Your task to perform on an android device: Search for "jbl flip 4" on target.com, select the first entry, add it to the cart, then select checkout. Image 0: 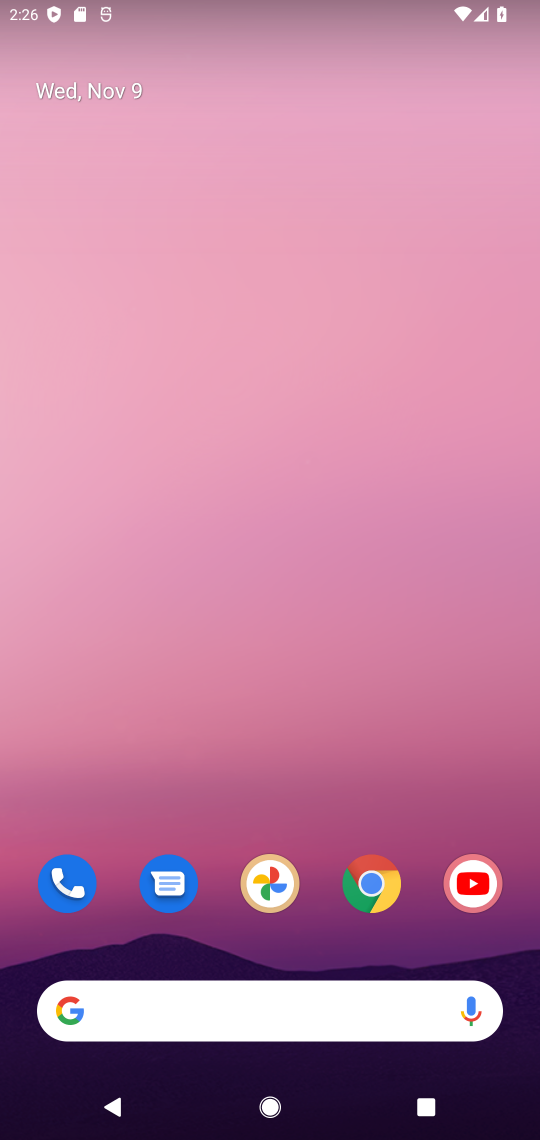
Step 0: click (363, 893)
Your task to perform on an android device: Search for "jbl flip 4" on target.com, select the first entry, add it to the cart, then select checkout. Image 1: 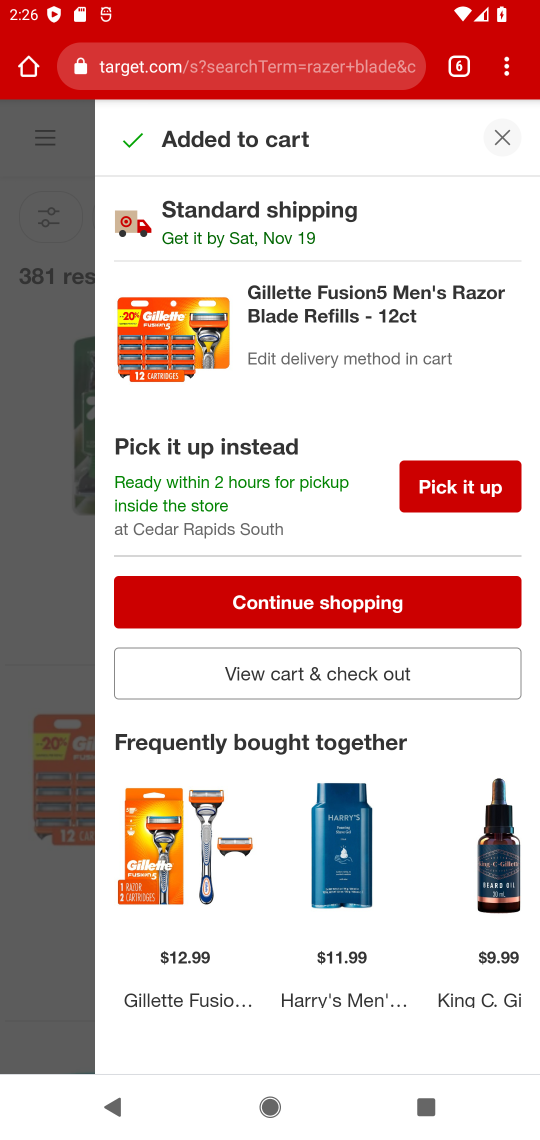
Step 1: click (507, 137)
Your task to perform on an android device: Search for "jbl flip 4" on target.com, select the first entry, add it to the cart, then select checkout. Image 2: 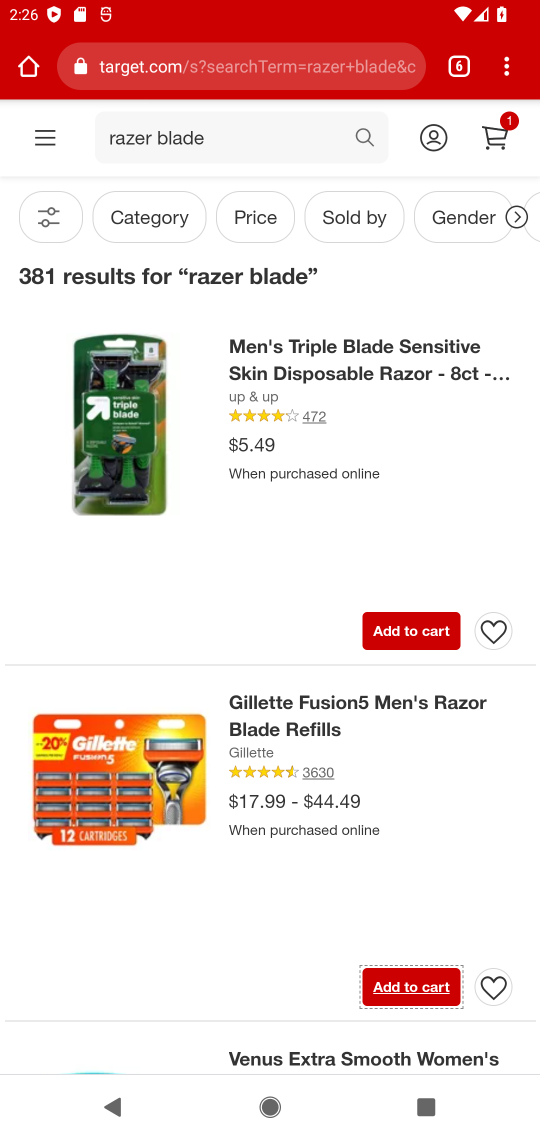
Step 2: click (221, 126)
Your task to perform on an android device: Search for "jbl flip 4" on target.com, select the first entry, add it to the cart, then select checkout. Image 3: 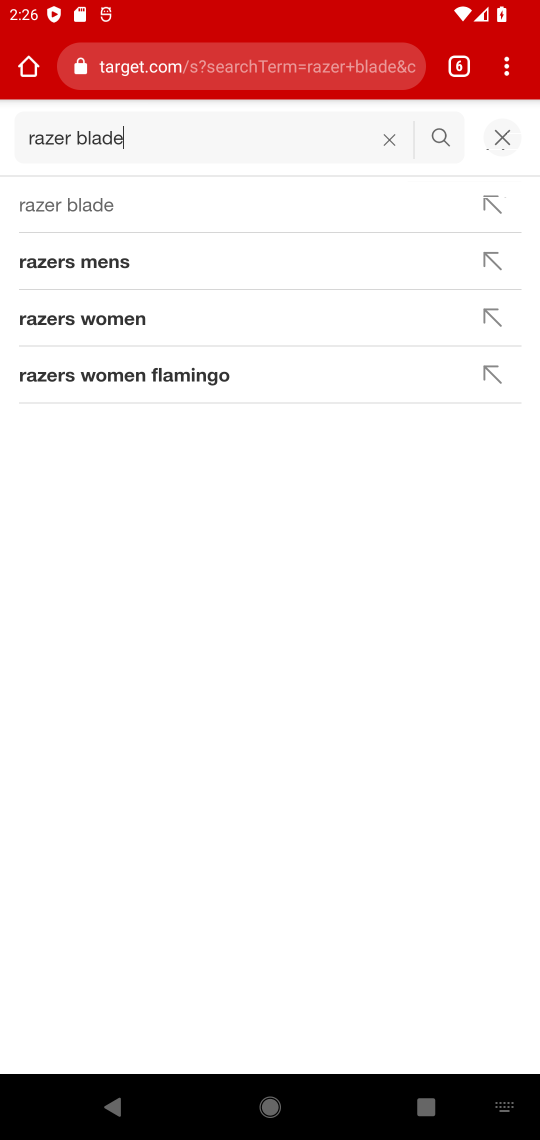
Step 3: click (390, 138)
Your task to perform on an android device: Search for "jbl flip 4" on target.com, select the first entry, add it to the cart, then select checkout. Image 4: 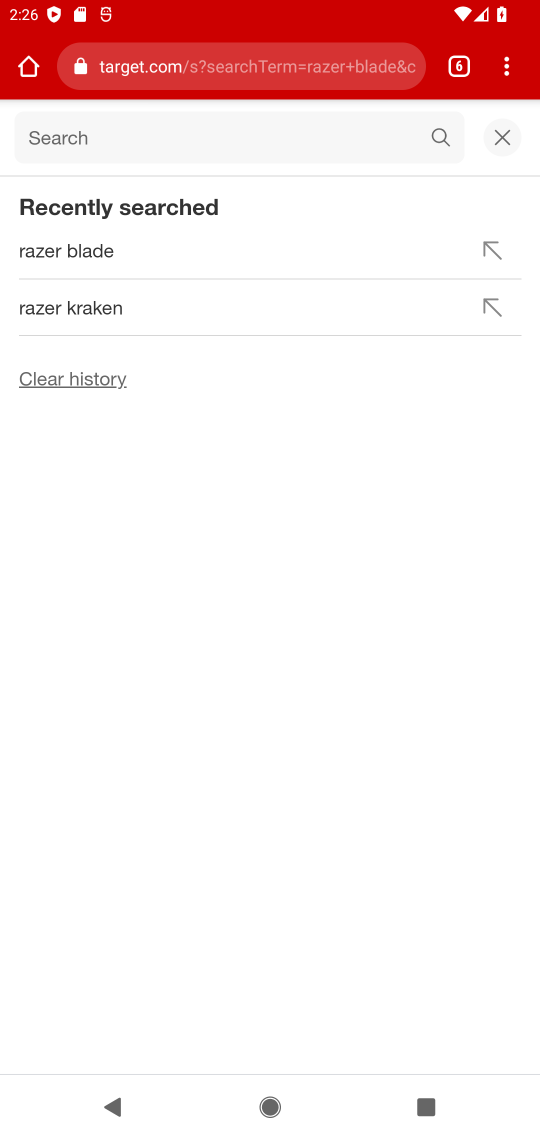
Step 4: type "jbl flip 4"
Your task to perform on an android device: Search for "jbl flip 4" on target.com, select the first entry, add it to the cart, then select checkout. Image 5: 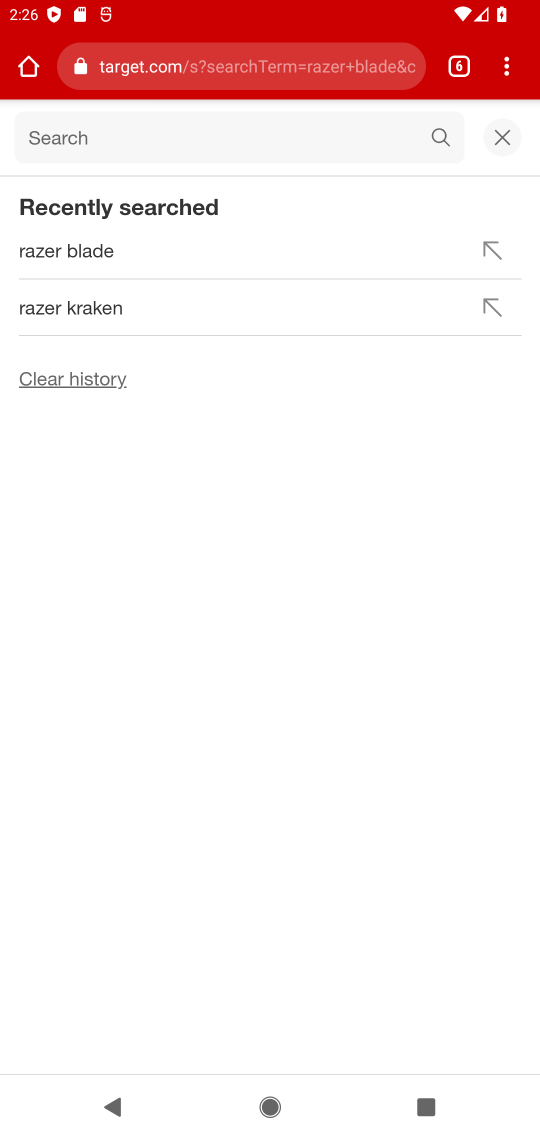
Step 5: click (343, 138)
Your task to perform on an android device: Search for "jbl flip 4" on target.com, select the first entry, add it to the cart, then select checkout. Image 6: 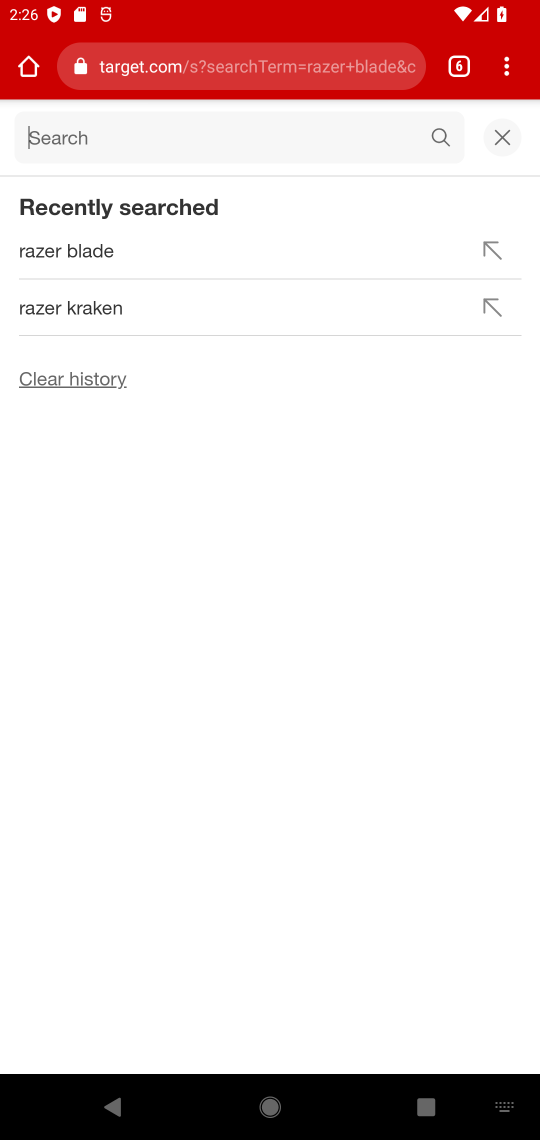
Step 6: type "jbl flip 4"
Your task to perform on an android device: Search for "jbl flip 4" on target.com, select the first entry, add it to the cart, then select checkout. Image 7: 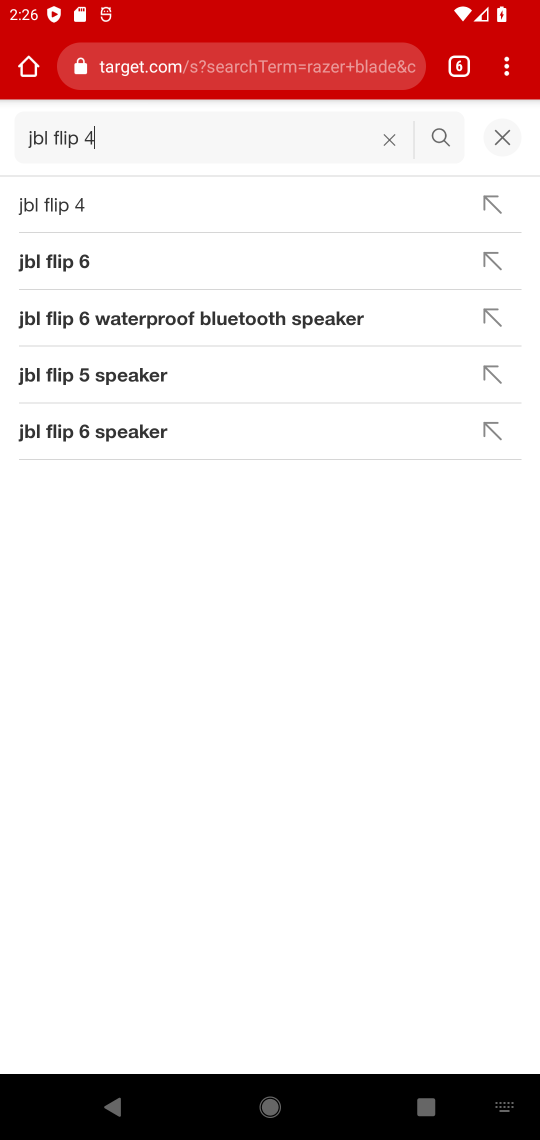
Step 7: click (61, 209)
Your task to perform on an android device: Search for "jbl flip 4" on target.com, select the first entry, add it to the cart, then select checkout. Image 8: 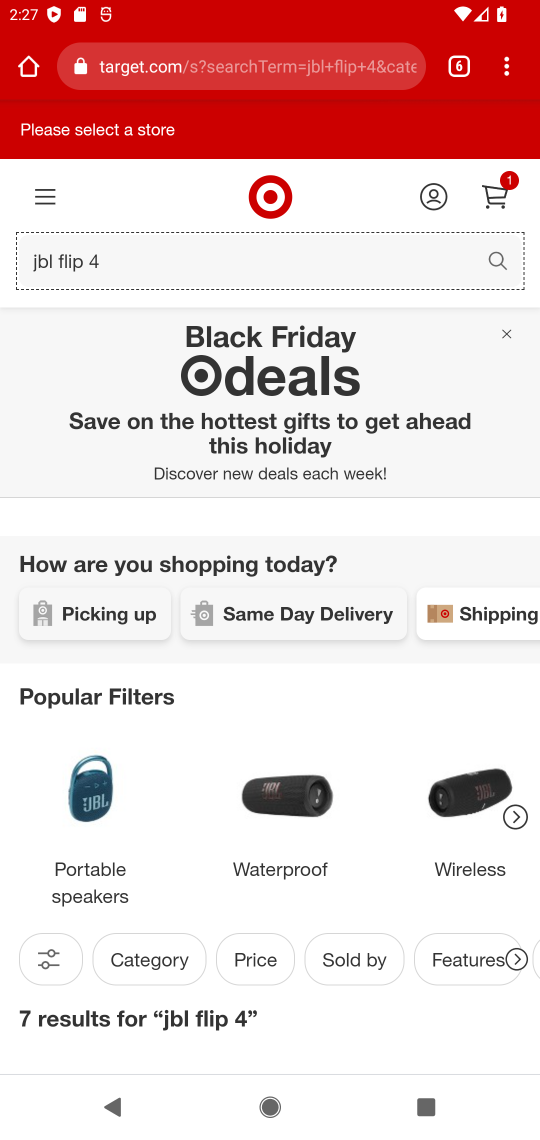
Step 8: drag from (316, 1041) to (427, 294)
Your task to perform on an android device: Search for "jbl flip 4" on target.com, select the first entry, add it to the cart, then select checkout. Image 9: 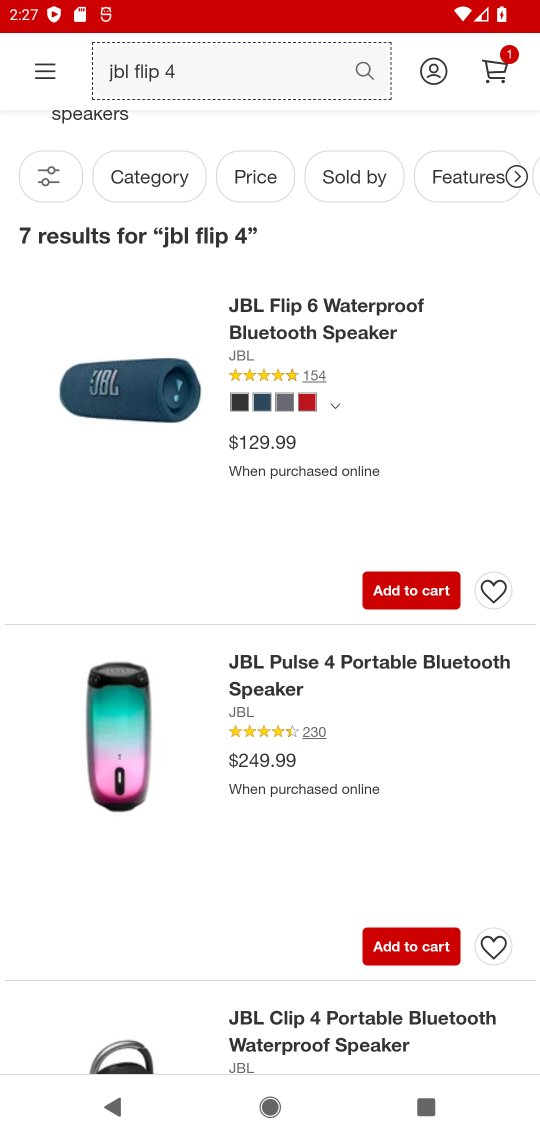
Step 9: drag from (377, 832) to (404, 414)
Your task to perform on an android device: Search for "jbl flip 4" on target.com, select the first entry, add it to the cart, then select checkout. Image 10: 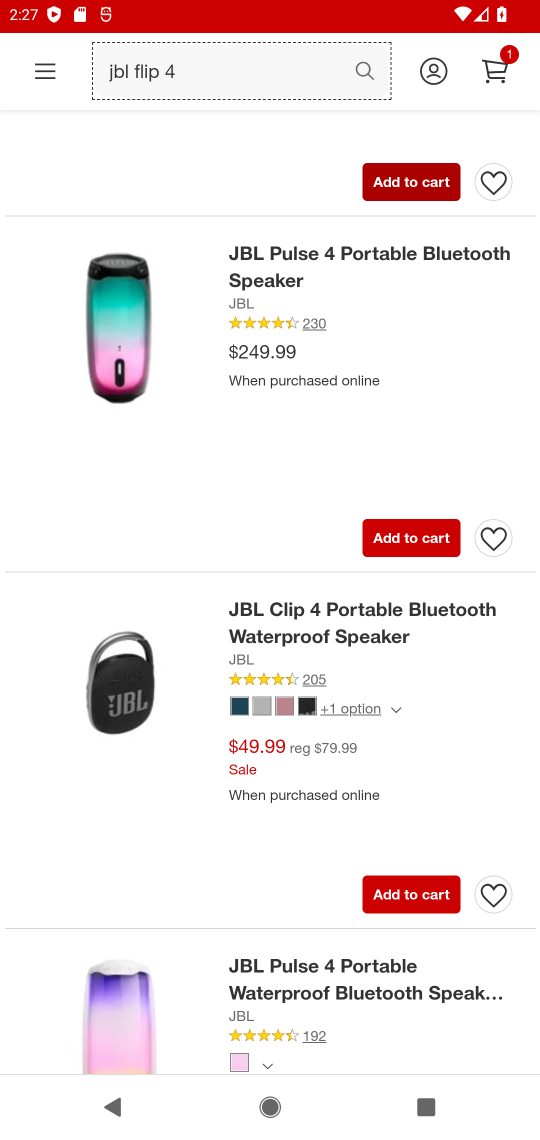
Step 10: drag from (348, 354) to (317, 576)
Your task to perform on an android device: Search for "jbl flip 4" on target.com, select the first entry, add it to the cart, then select checkout. Image 11: 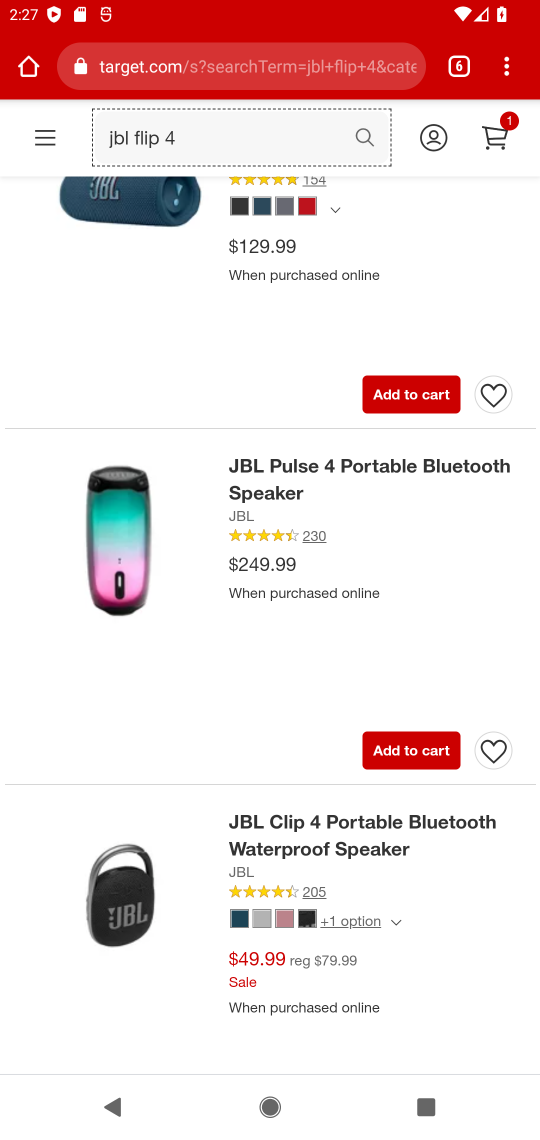
Step 11: drag from (391, 217) to (293, 712)
Your task to perform on an android device: Search for "jbl flip 4" on target.com, select the first entry, add it to the cart, then select checkout. Image 12: 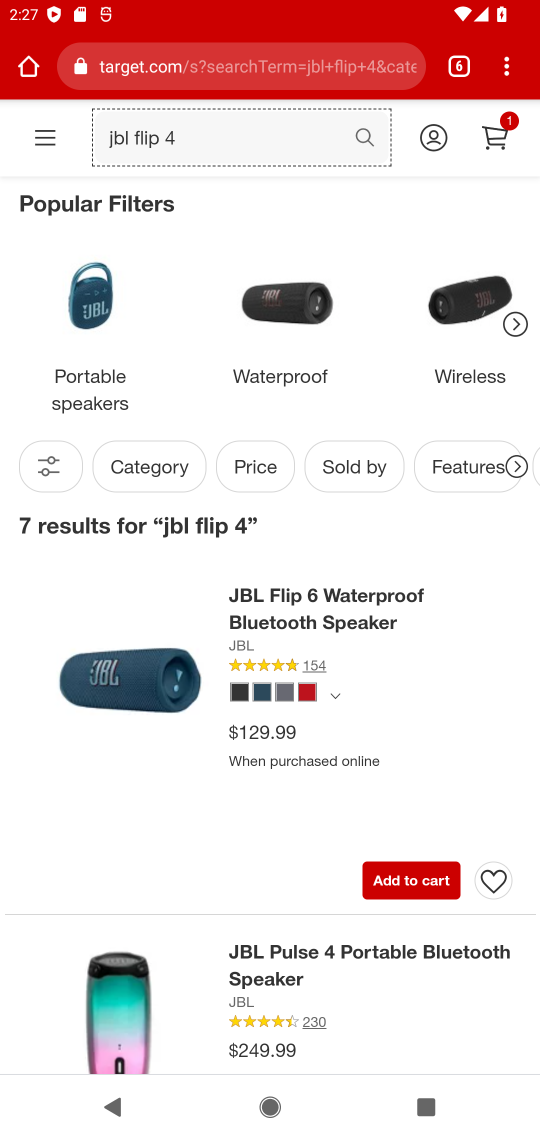
Step 12: click (424, 879)
Your task to perform on an android device: Search for "jbl flip 4" on target.com, select the first entry, add it to the cart, then select checkout. Image 13: 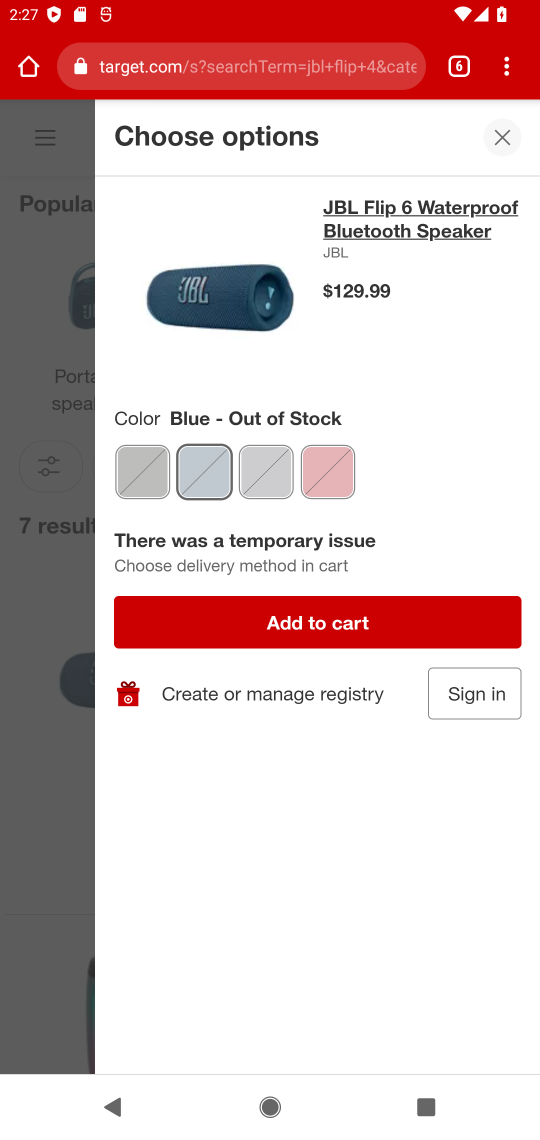
Step 13: click (352, 610)
Your task to perform on an android device: Search for "jbl flip 4" on target.com, select the first entry, add it to the cart, then select checkout. Image 14: 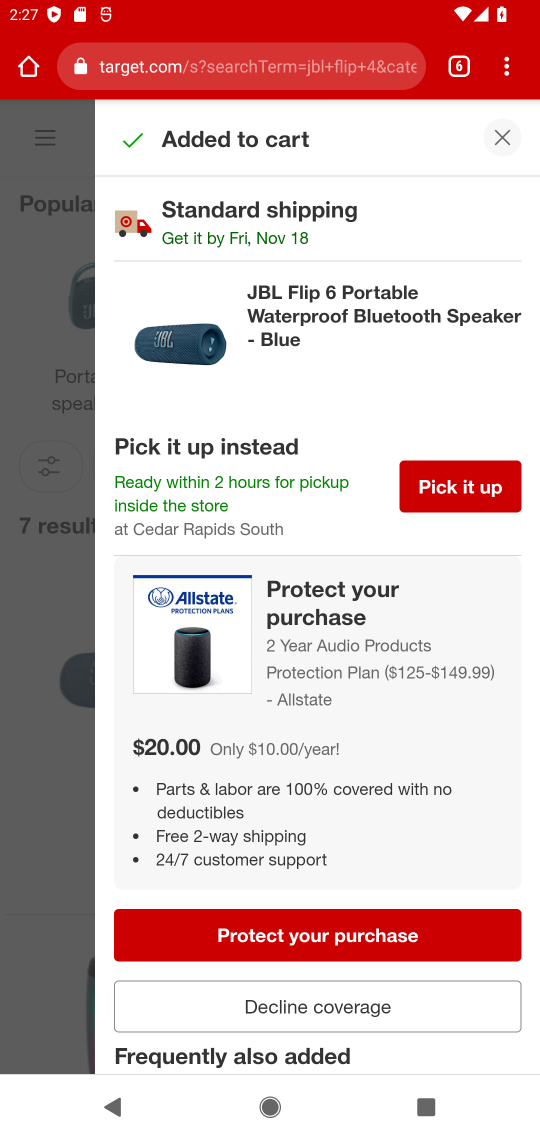
Step 14: click (351, 1010)
Your task to perform on an android device: Search for "jbl flip 4" on target.com, select the first entry, add it to the cart, then select checkout. Image 15: 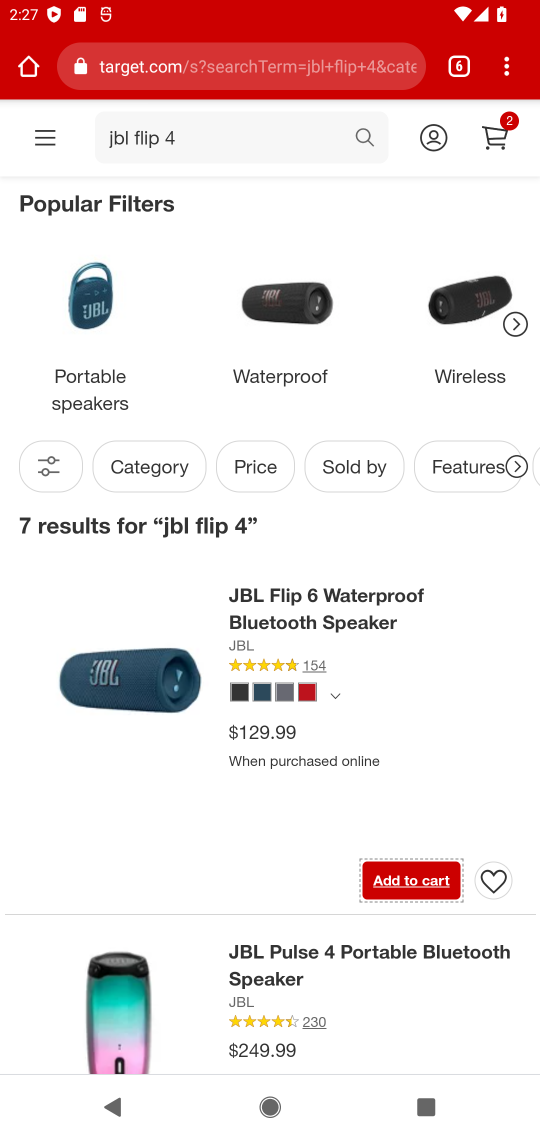
Step 15: click (502, 131)
Your task to perform on an android device: Search for "jbl flip 4" on target.com, select the first entry, add it to the cart, then select checkout. Image 16: 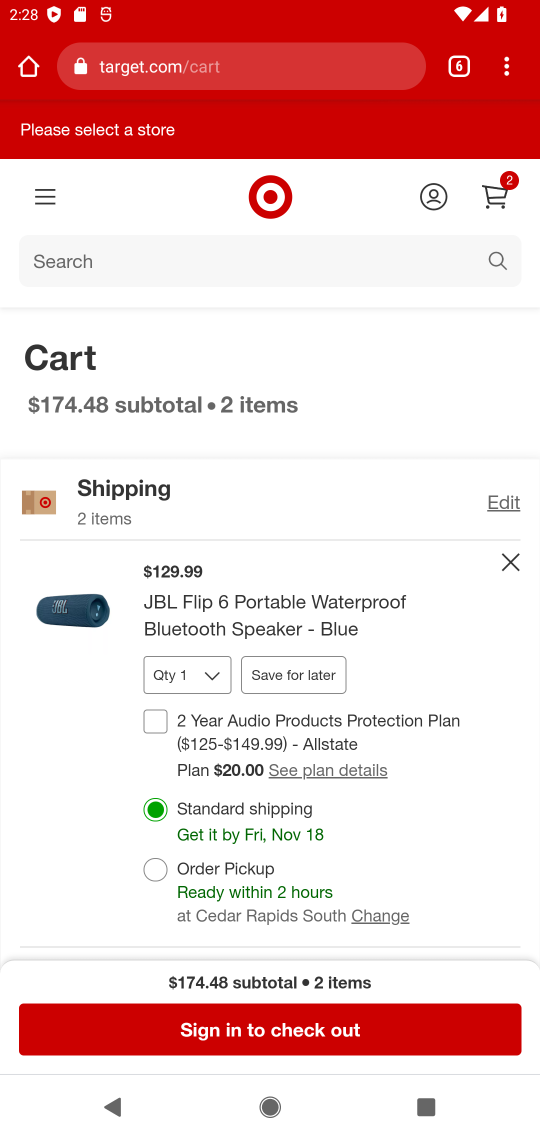
Step 16: click (267, 1032)
Your task to perform on an android device: Search for "jbl flip 4" on target.com, select the first entry, add it to the cart, then select checkout. Image 17: 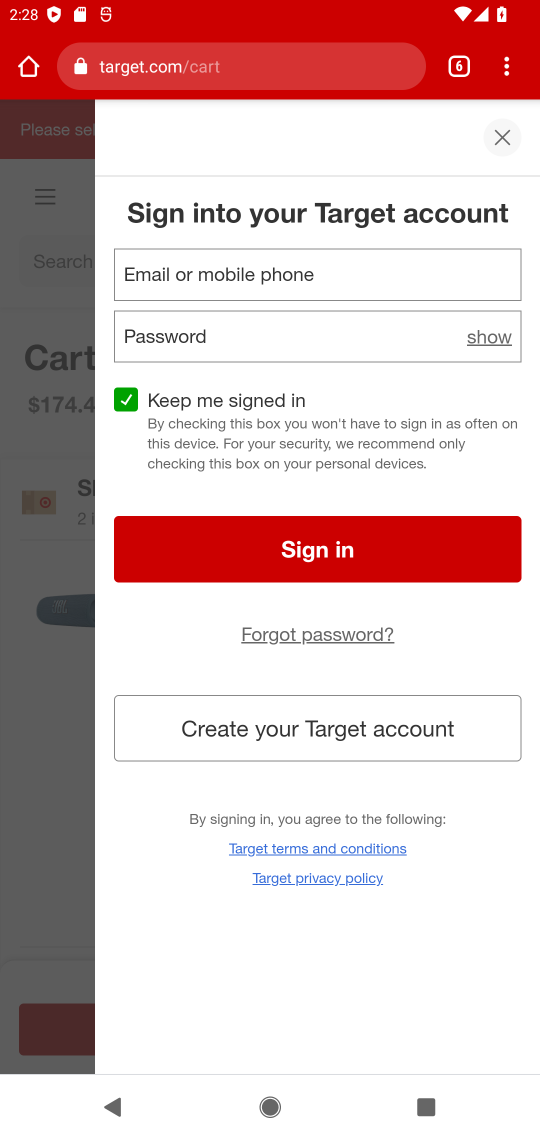
Step 17: task complete